Your task to perform on an android device: Search for pizza restaurants on Maps Image 0: 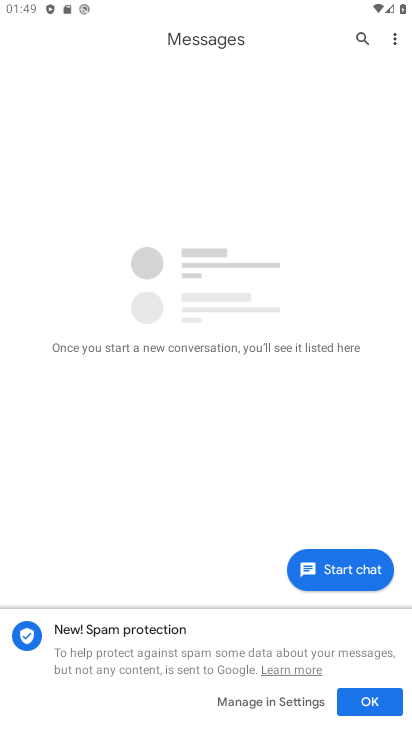
Step 0: press back button
Your task to perform on an android device: Search for pizza restaurants on Maps Image 1: 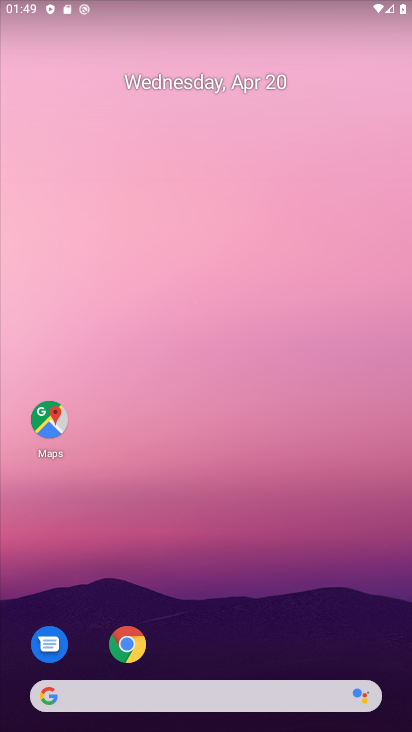
Step 1: click (45, 407)
Your task to perform on an android device: Search for pizza restaurants on Maps Image 2: 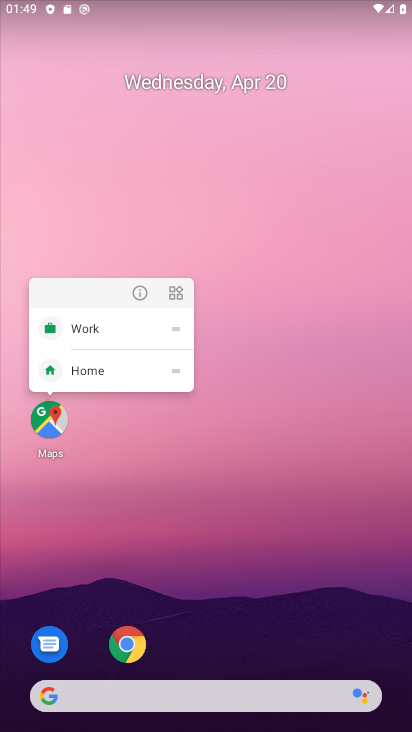
Step 2: click (44, 418)
Your task to perform on an android device: Search for pizza restaurants on Maps Image 3: 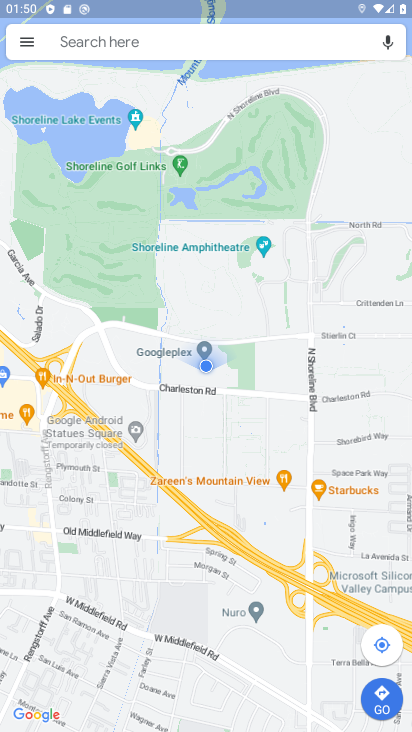
Step 3: click (181, 41)
Your task to perform on an android device: Search for pizza restaurants on Maps Image 4: 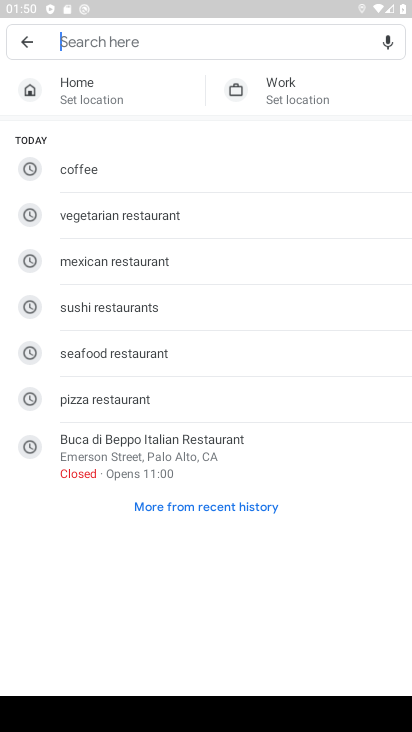
Step 4: type "pizz"
Your task to perform on an android device: Search for pizza restaurants on Maps Image 5: 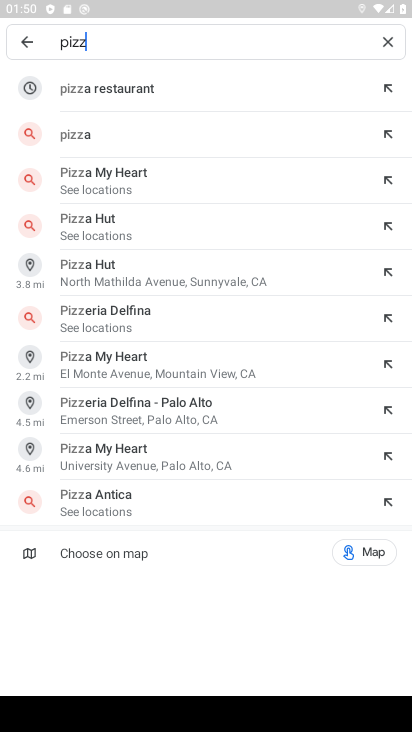
Step 5: type "pizza restaurants "
Your task to perform on an android device: Search for pizza restaurants on Maps Image 6: 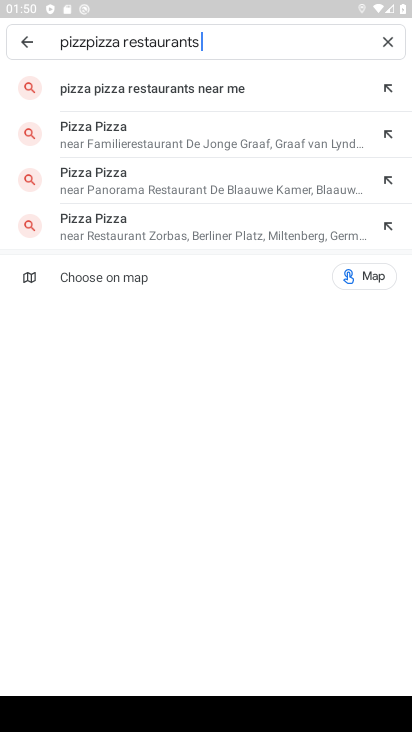
Step 6: click (311, 100)
Your task to perform on an android device: Search for pizza restaurants on Maps Image 7: 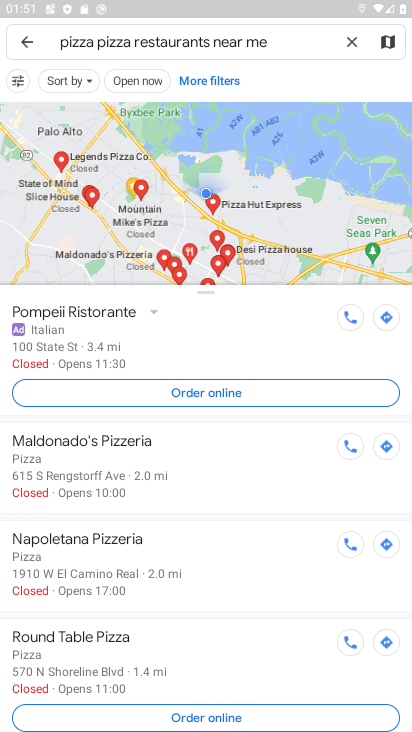
Step 7: task complete